Your task to perform on an android device: turn off translation in the chrome app Image 0: 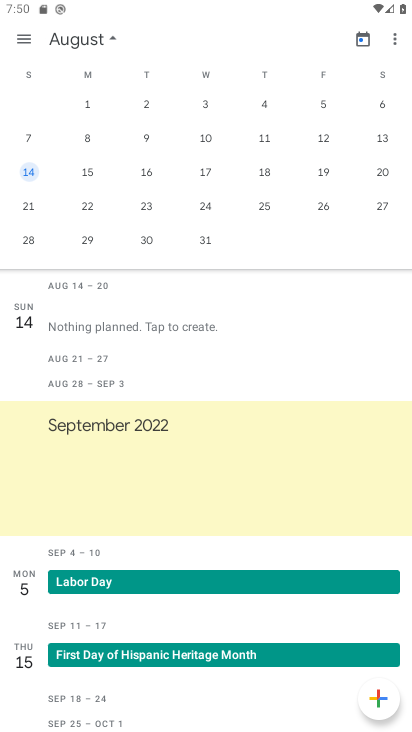
Step 0: press home button
Your task to perform on an android device: turn off translation in the chrome app Image 1: 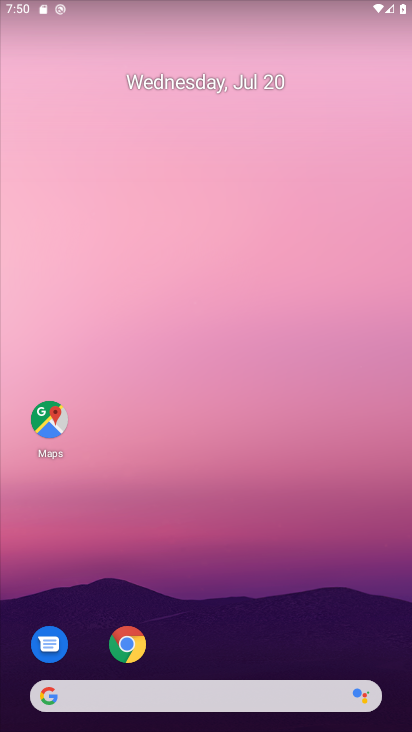
Step 1: click (124, 645)
Your task to perform on an android device: turn off translation in the chrome app Image 2: 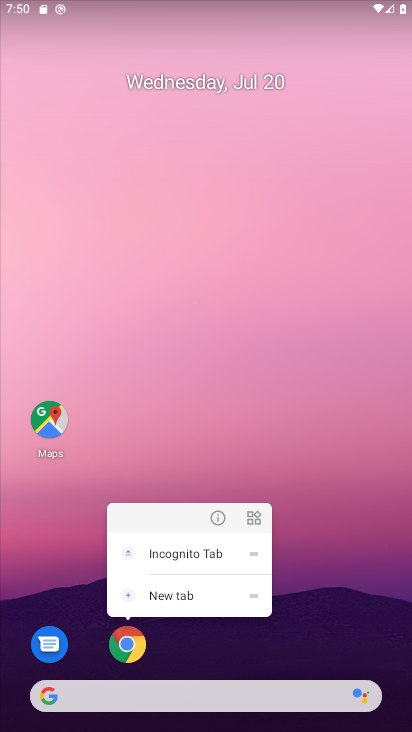
Step 2: click (124, 645)
Your task to perform on an android device: turn off translation in the chrome app Image 3: 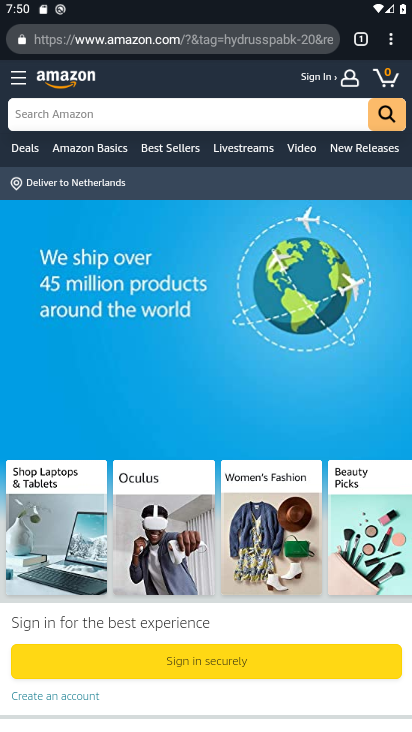
Step 3: click (388, 43)
Your task to perform on an android device: turn off translation in the chrome app Image 4: 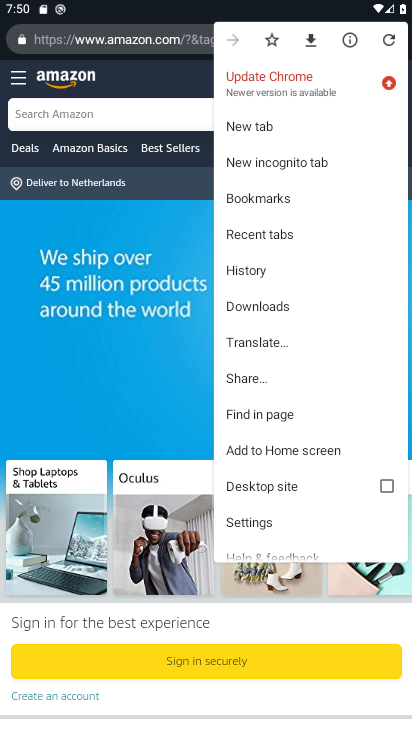
Step 4: click (243, 525)
Your task to perform on an android device: turn off translation in the chrome app Image 5: 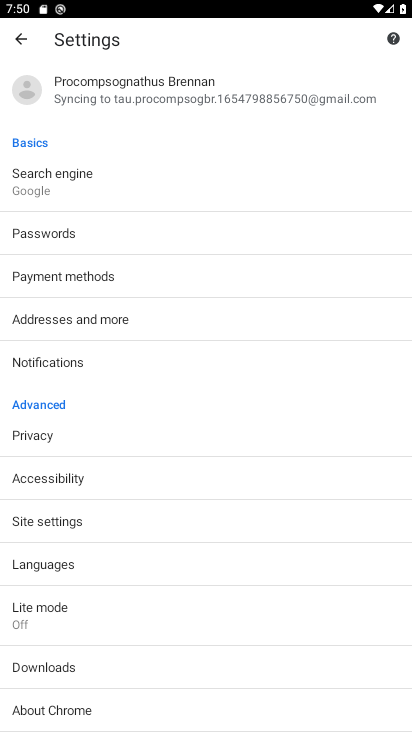
Step 5: click (29, 574)
Your task to perform on an android device: turn off translation in the chrome app Image 6: 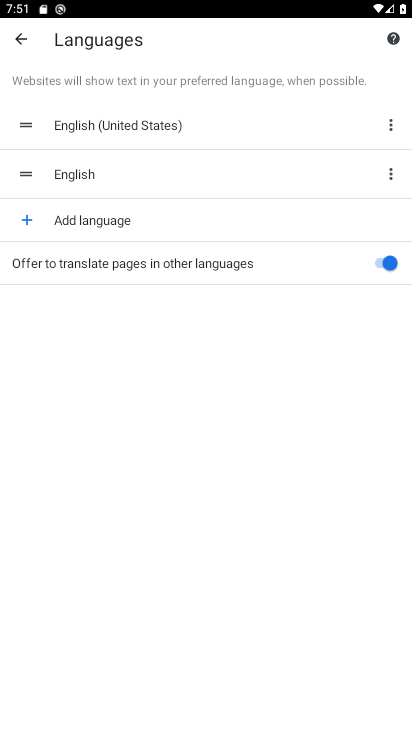
Step 6: click (376, 259)
Your task to perform on an android device: turn off translation in the chrome app Image 7: 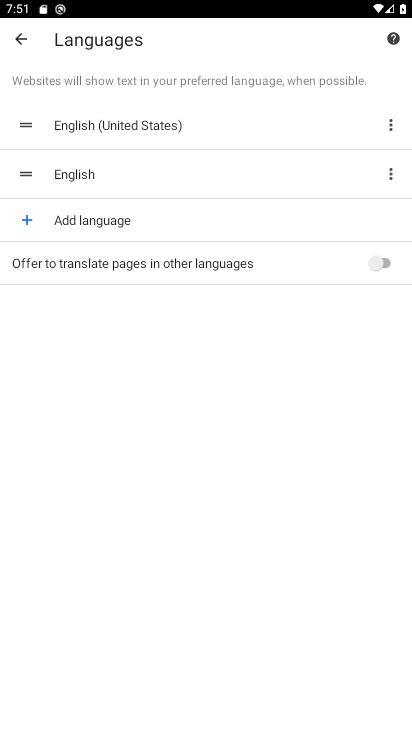
Step 7: task complete